Your task to perform on an android device: toggle location history Image 0: 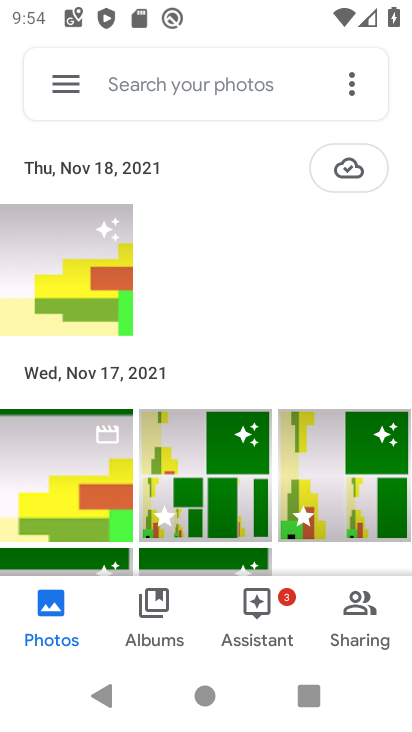
Step 0: press home button
Your task to perform on an android device: toggle location history Image 1: 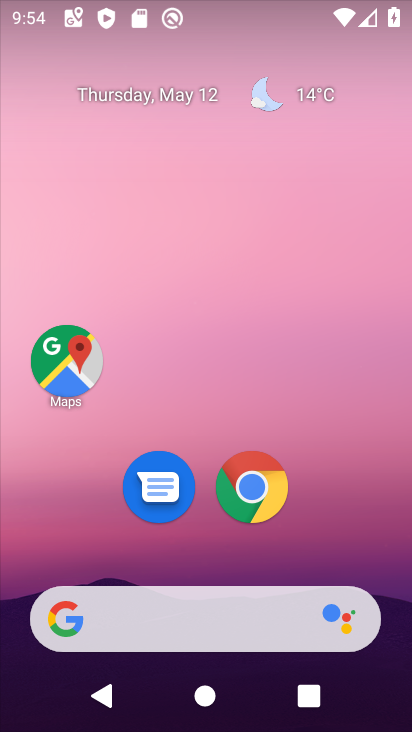
Step 1: drag from (17, 523) to (183, 167)
Your task to perform on an android device: toggle location history Image 2: 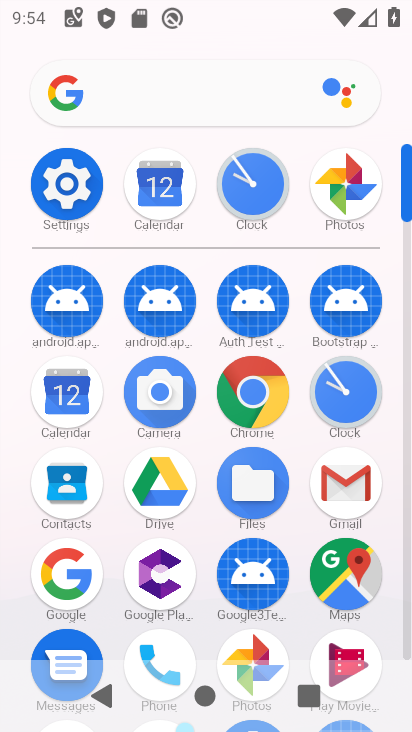
Step 2: click (40, 196)
Your task to perform on an android device: toggle location history Image 3: 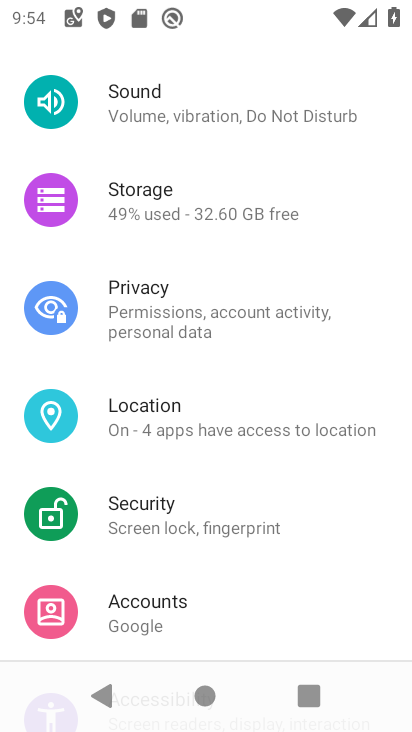
Step 3: drag from (170, 609) to (229, 365)
Your task to perform on an android device: toggle location history Image 4: 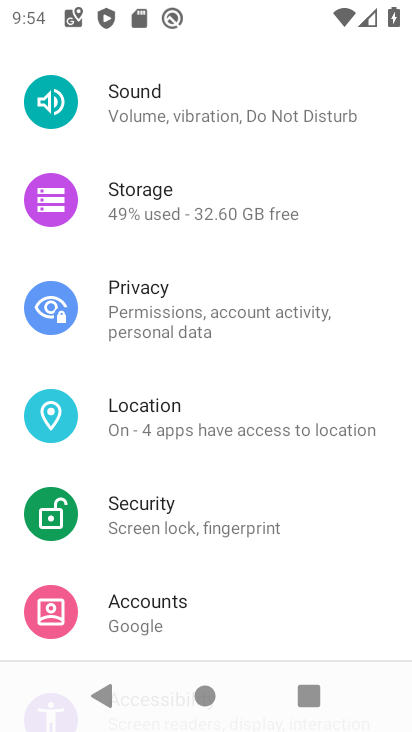
Step 4: click (157, 397)
Your task to perform on an android device: toggle location history Image 5: 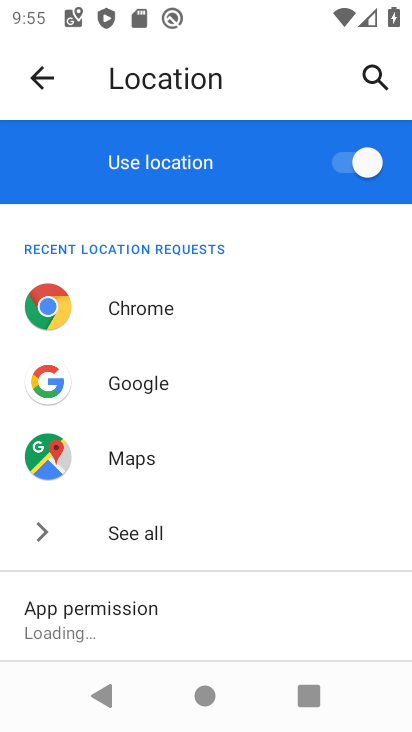
Step 5: drag from (27, 630) to (227, 195)
Your task to perform on an android device: toggle location history Image 6: 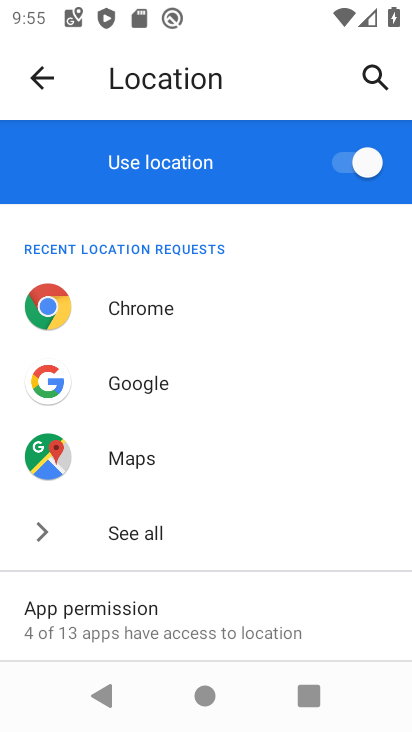
Step 6: drag from (9, 587) to (256, 202)
Your task to perform on an android device: toggle location history Image 7: 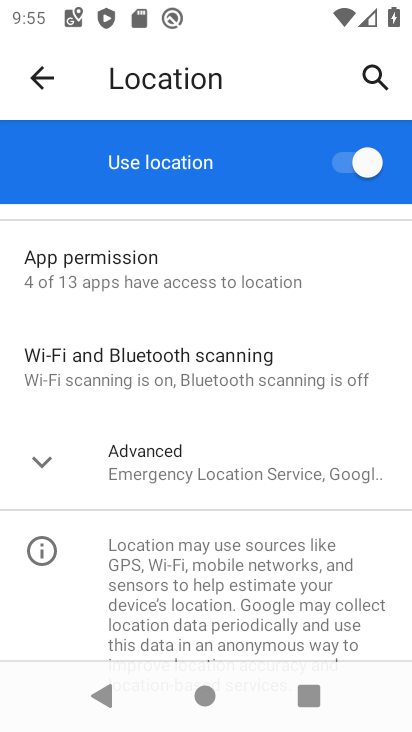
Step 7: click (166, 447)
Your task to perform on an android device: toggle location history Image 8: 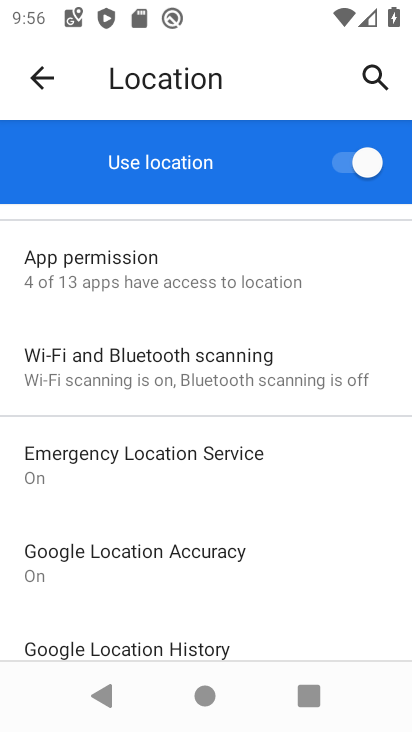
Step 8: click (167, 650)
Your task to perform on an android device: toggle location history Image 9: 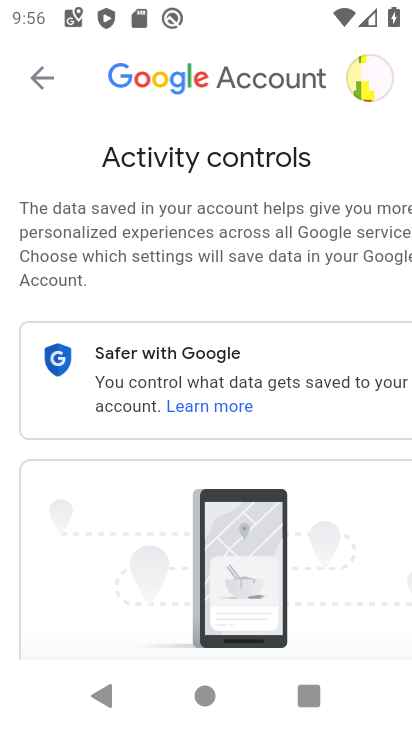
Step 9: drag from (129, 662) to (310, 194)
Your task to perform on an android device: toggle location history Image 10: 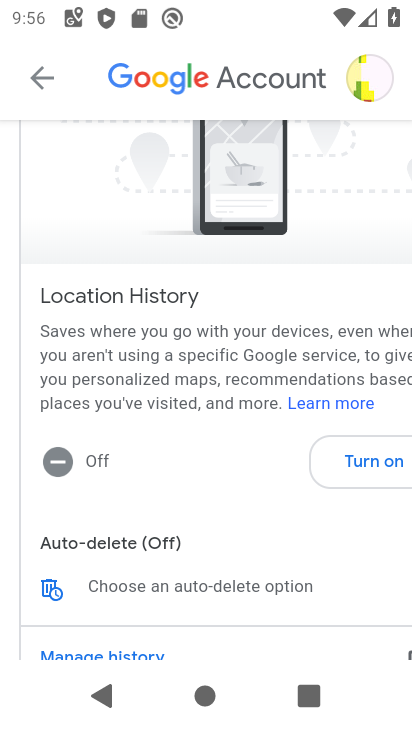
Step 10: click (359, 456)
Your task to perform on an android device: toggle location history Image 11: 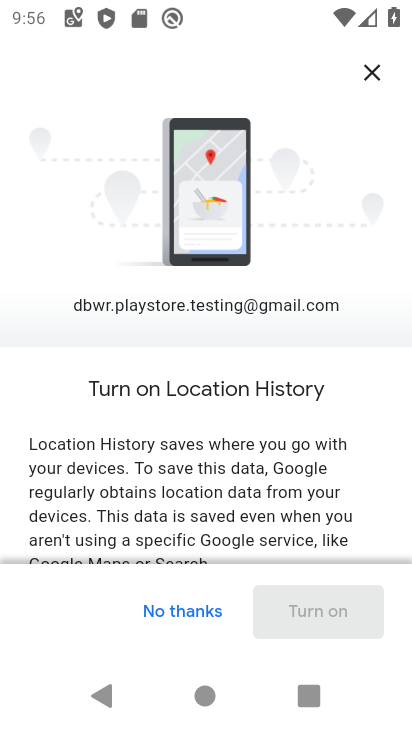
Step 11: drag from (190, 555) to (370, 10)
Your task to perform on an android device: toggle location history Image 12: 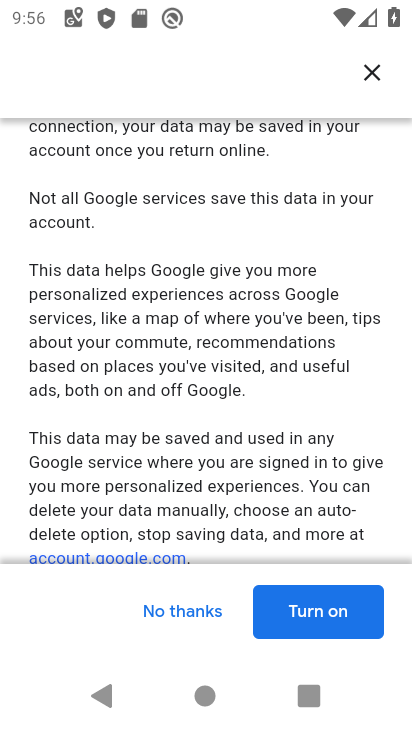
Step 12: click (311, 622)
Your task to perform on an android device: toggle location history Image 13: 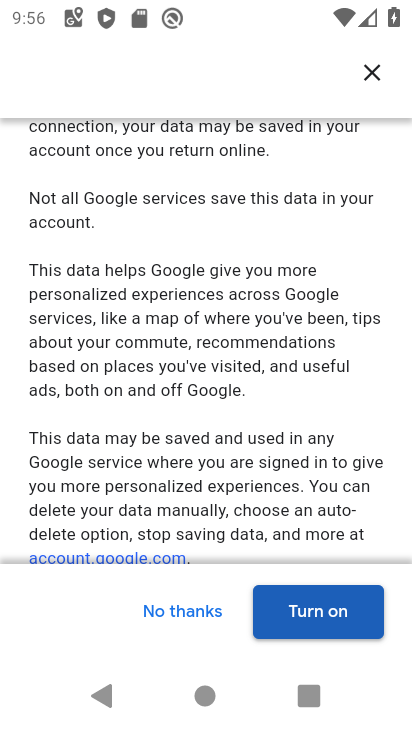
Step 13: click (309, 612)
Your task to perform on an android device: toggle location history Image 14: 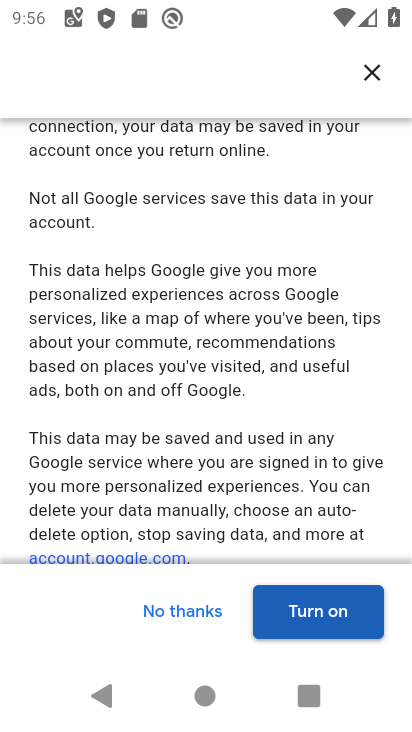
Step 14: click (334, 607)
Your task to perform on an android device: toggle location history Image 15: 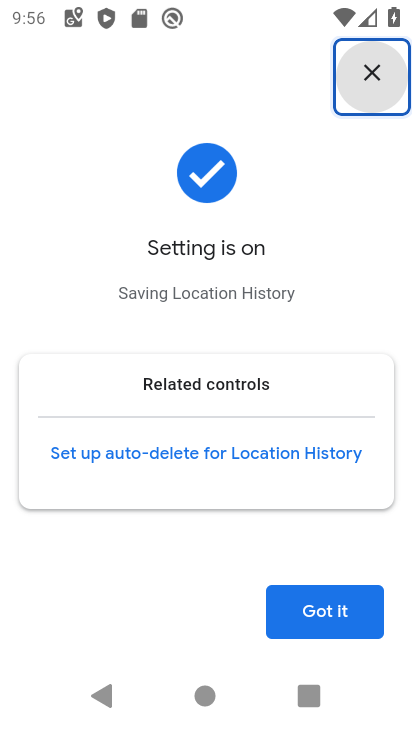
Step 15: task complete